Your task to perform on an android device: Search for pizza restaurants on Maps Image 0: 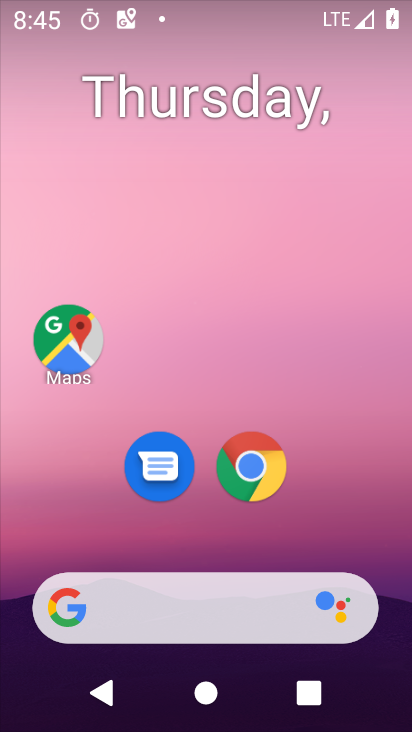
Step 0: click (77, 341)
Your task to perform on an android device: Search for pizza restaurants on Maps Image 1: 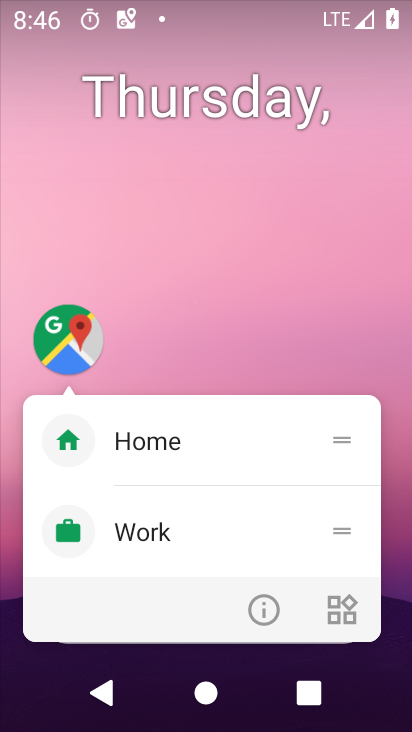
Step 1: click (74, 335)
Your task to perform on an android device: Search for pizza restaurants on Maps Image 2: 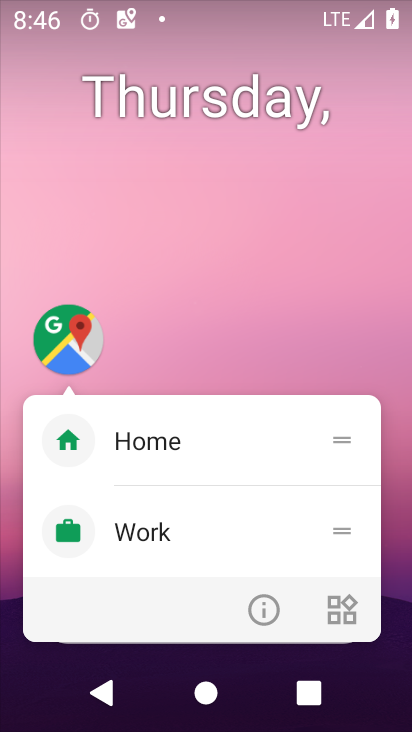
Step 2: click (78, 333)
Your task to perform on an android device: Search for pizza restaurants on Maps Image 3: 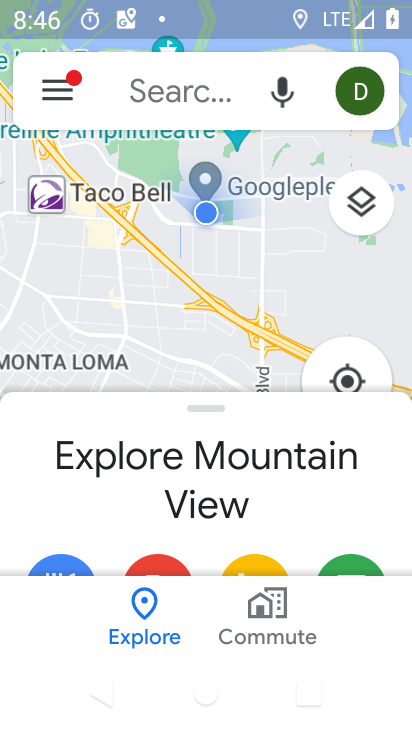
Step 3: type "pizza restaurants"
Your task to perform on an android device: Search for pizza restaurants on Maps Image 4: 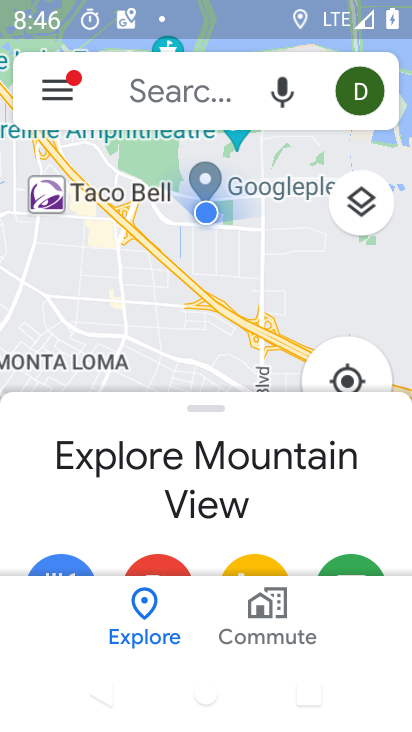
Step 4: click (217, 97)
Your task to perform on an android device: Search for pizza restaurants on Maps Image 5: 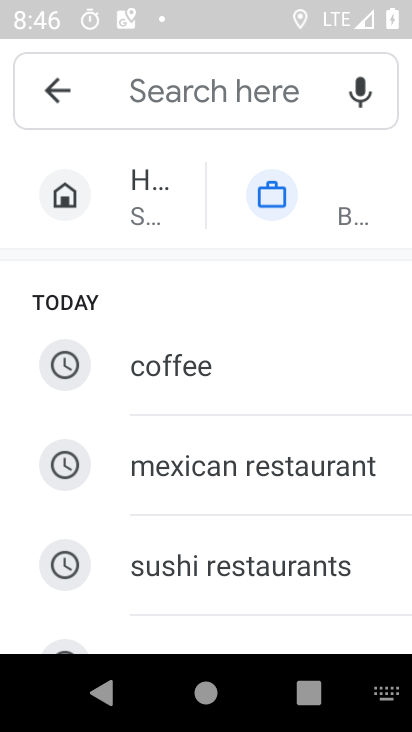
Step 5: type "pizza restaurants"
Your task to perform on an android device: Search for pizza restaurants on Maps Image 6: 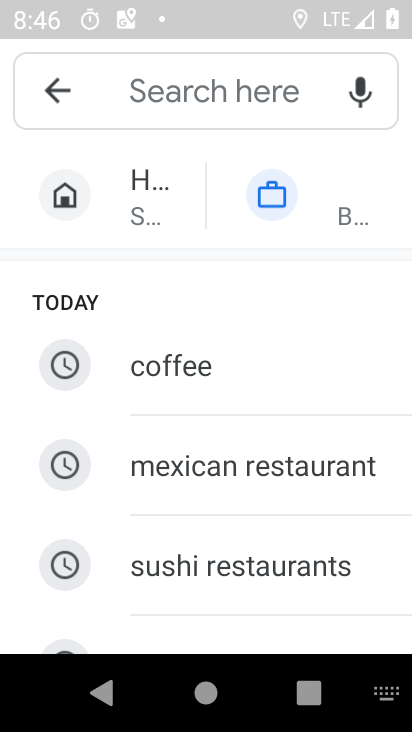
Step 6: click (181, 91)
Your task to perform on an android device: Search for pizza restaurants on Maps Image 7: 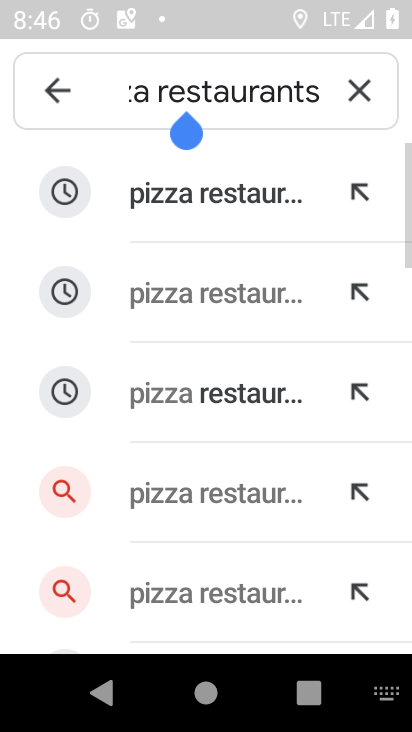
Step 7: click (132, 187)
Your task to perform on an android device: Search for pizza restaurants on Maps Image 8: 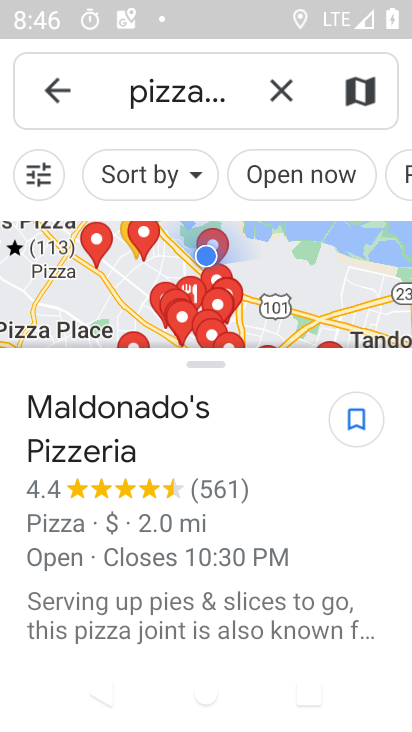
Step 8: task complete